Your task to perform on an android device: Open the stopwatch Image 0: 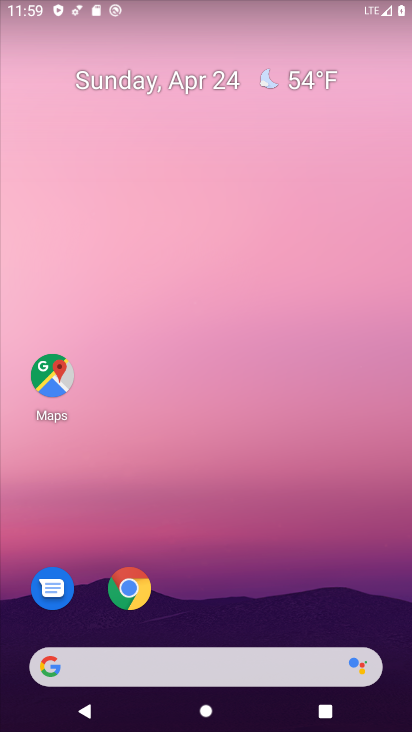
Step 0: drag from (211, 637) to (160, 20)
Your task to perform on an android device: Open the stopwatch Image 1: 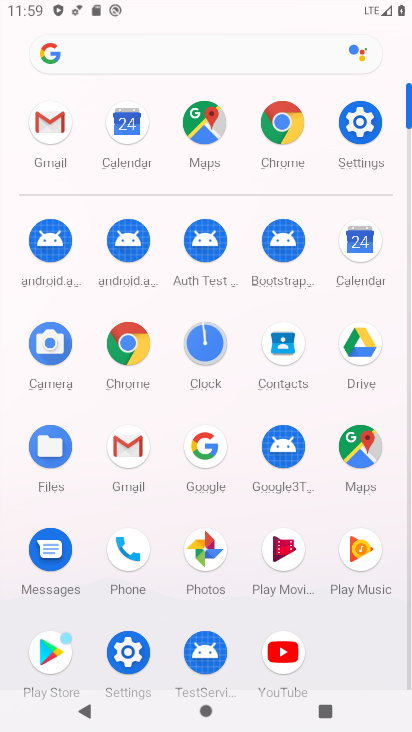
Step 1: click (203, 331)
Your task to perform on an android device: Open the stopwatch Image 2: 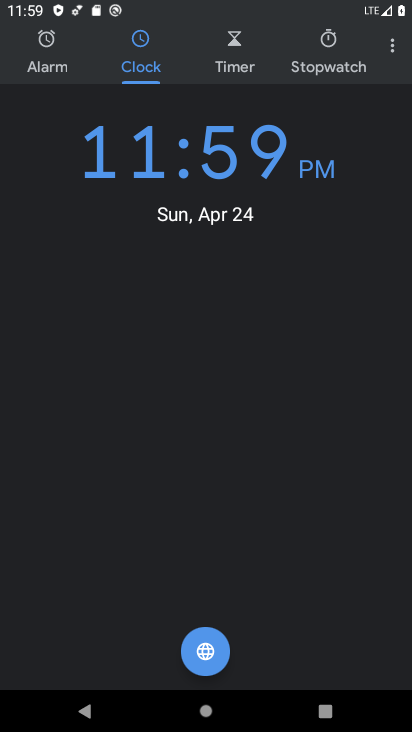
Step 2: click (328, 57)
Your task to perform on an android device: Open the stopwatch Image 3: 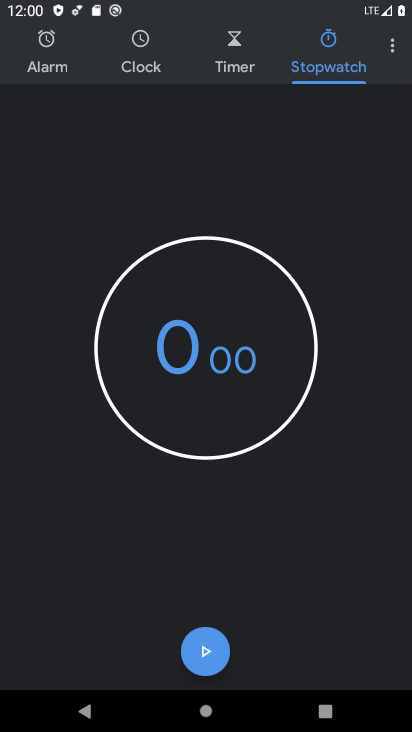
Step 3: click (200, 650)
Your task to perform on an android device: Open the stopwatch Image 4: 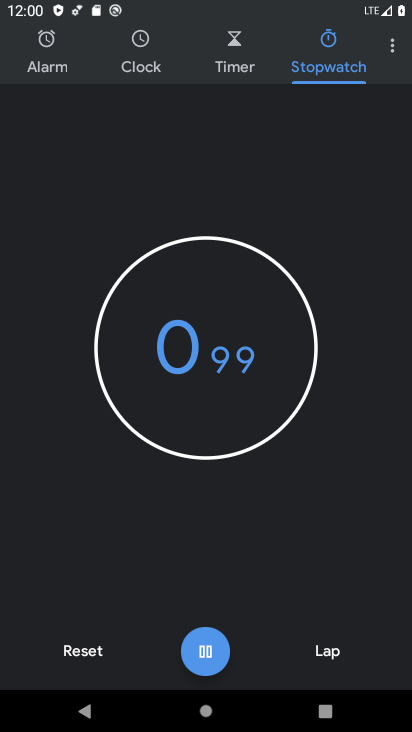
Step 4: click (208, 649)
Your task to perform on an android device: Open the stopwatch Image 5: 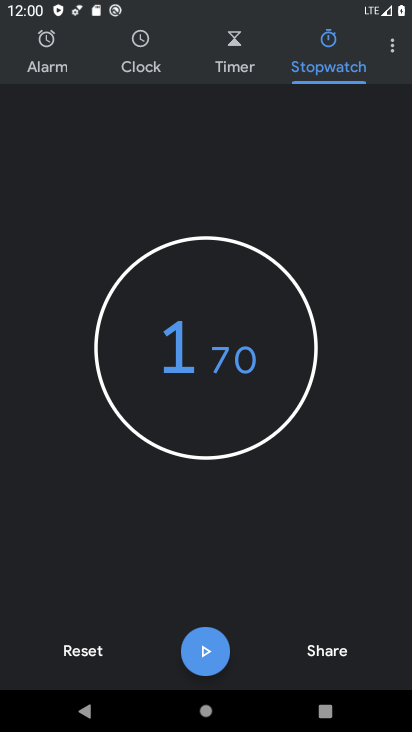
Step 5: task complete